Your task to perform on an android device: Go to sound settings Image 0: 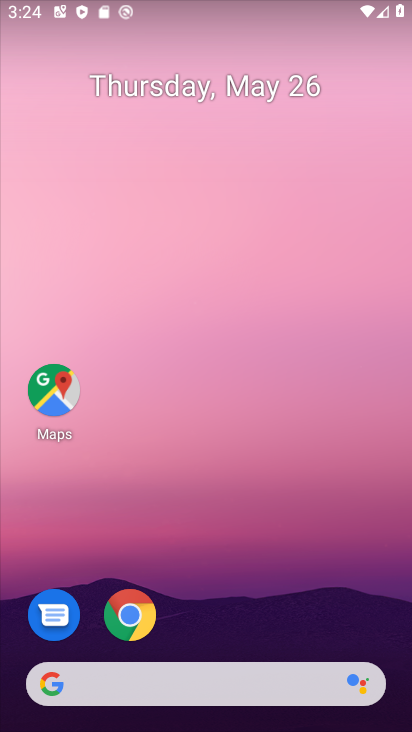
Step 0: drag from (310, 619) to (388, 173)
Your task to perform on an android device: Go to sound settings Image 1: 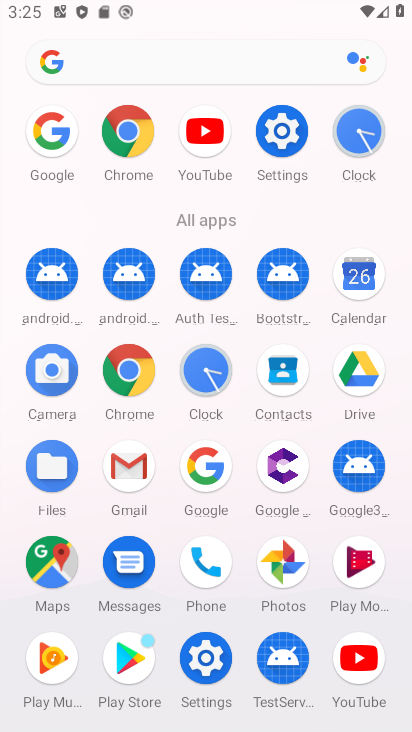
Step 1: click (291, 139)
Your task to perform on an android device: Go to sound settings Image 2: 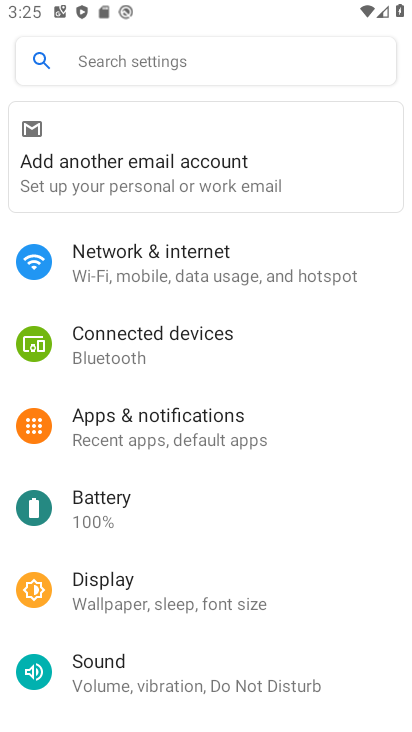
Step 2: click (210, 669)
Your task to perform on an android device: Go to sound settings Image 3: 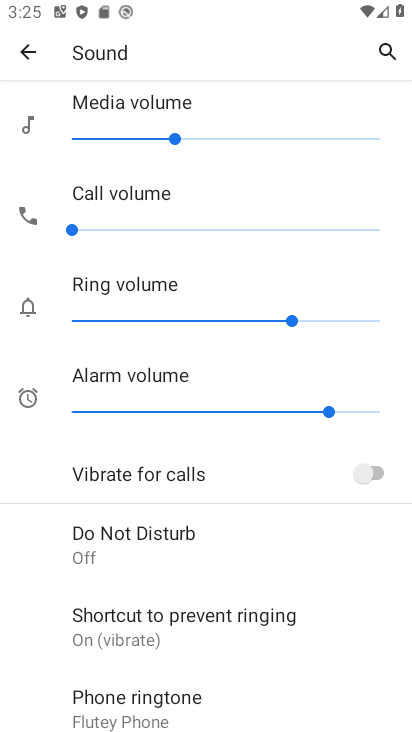
Step 3: task complete